Your task to perform on an android device: change notifications settings Image 0: 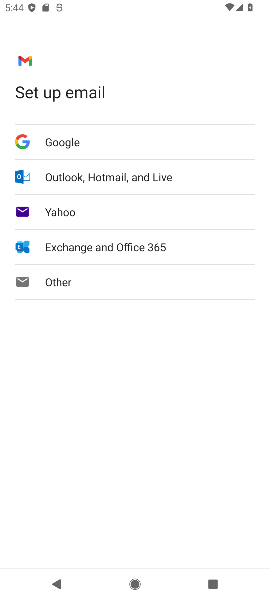
Step 0: press home button
Your task to perform on an android device: change notifications settings Image 1: 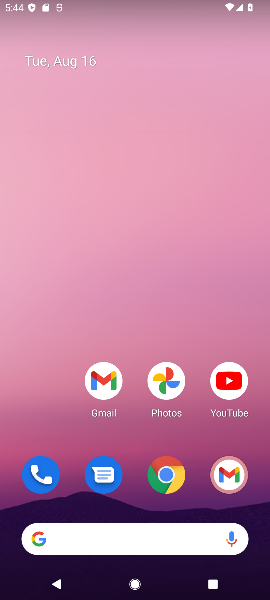
Step 1: drag from (195, 493) to (131, 15)
Your task to perform on an android device: change notifications settings Image 2: 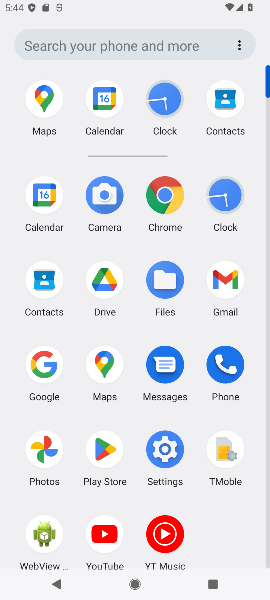
Step 2: click (170, 447)
Your task to perform on an android device: change notifications settings Image 3: 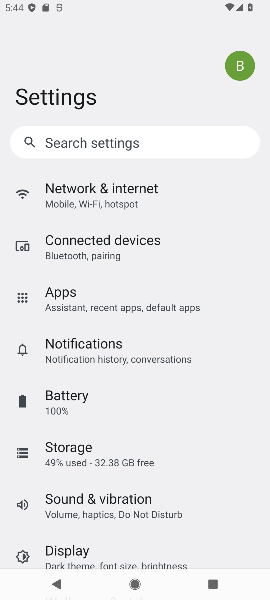
Step 3: task complete